Your task to perform on an android device: Open wifi settings Image 0: 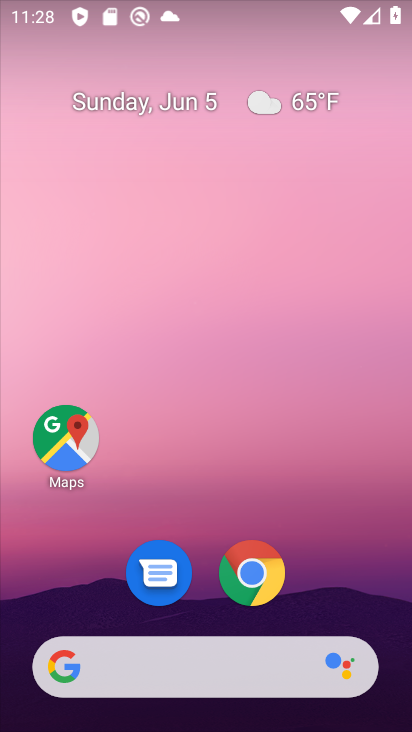
Step 0: drag from (211, 616) to (208, 36)
Your task to perform on an android device: Open wifi settings Image 1: 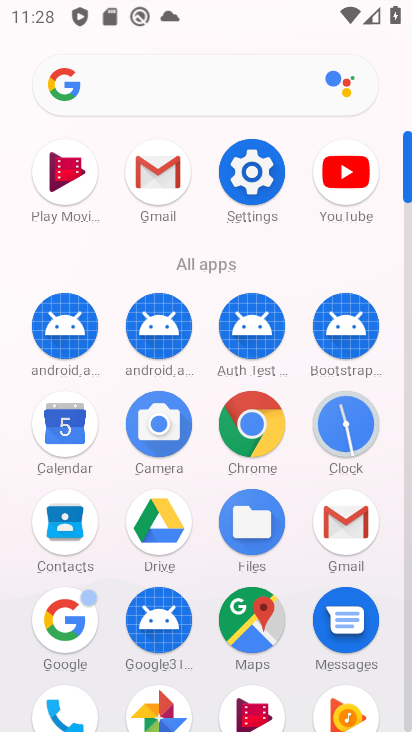
Step 1: click (243, 169)
Your task to perform on an android device: Open wifi settings Image 2: 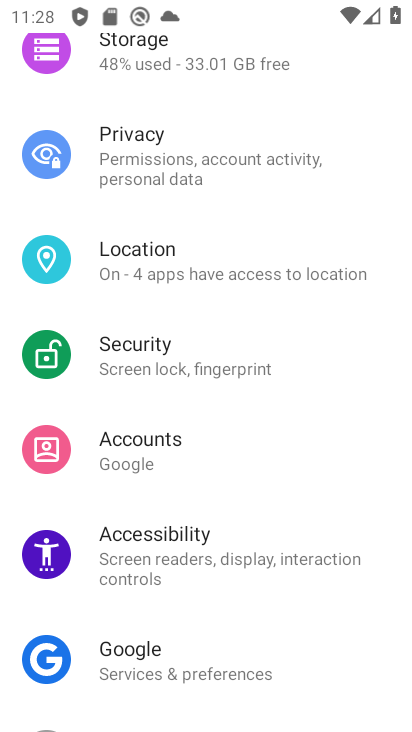
Step 2: drag from (142, 100) to (127, 598)
Your task to perform on an android device: Open wifi settings Image 3: 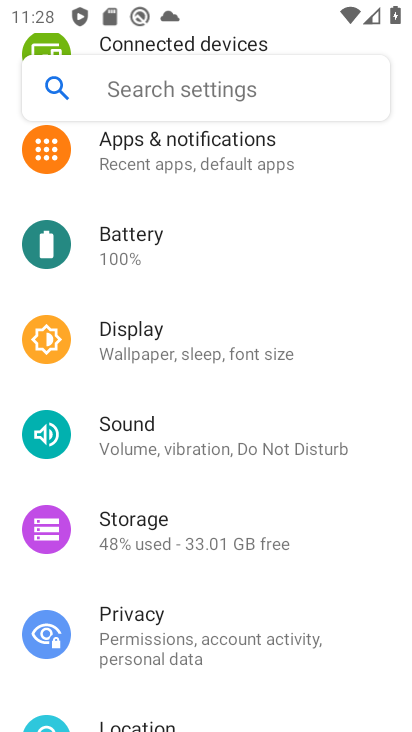
Step 3: drag from (119, 161) to (151, 690)
Your task to perform on an android device: Open wifi settings Image 4: 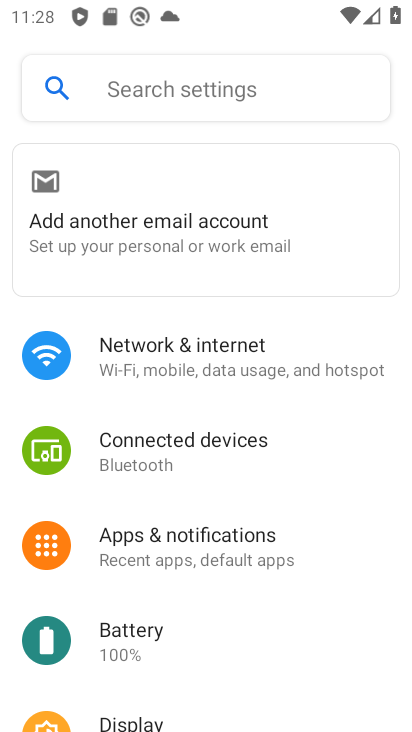
Step 4: click (82, 352)
Your task to perform on an android device: Open wifi settings Image 5: 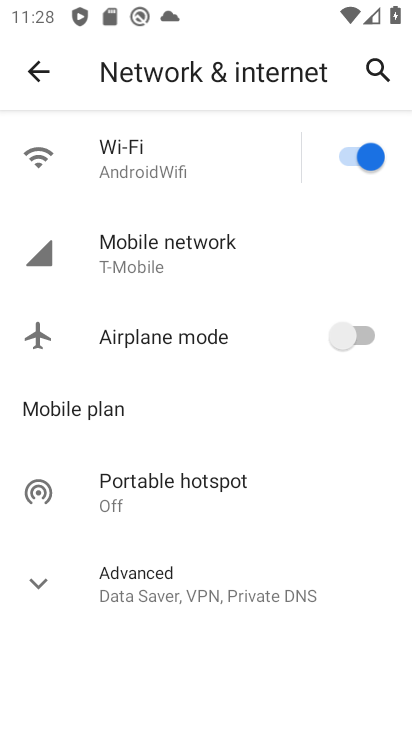
Step 5: click (253, 146)
Your task to perform on an android device: Open wifi settings Image 6: 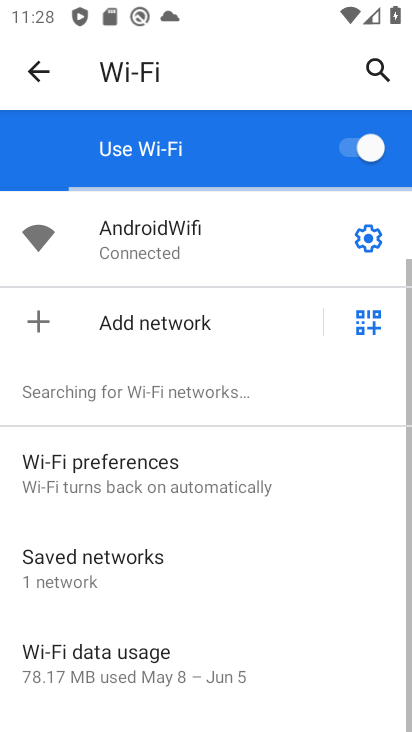
Step 6: task complete